Your task to perform on an android device: turn smart compose on in the gmail app Image 0: 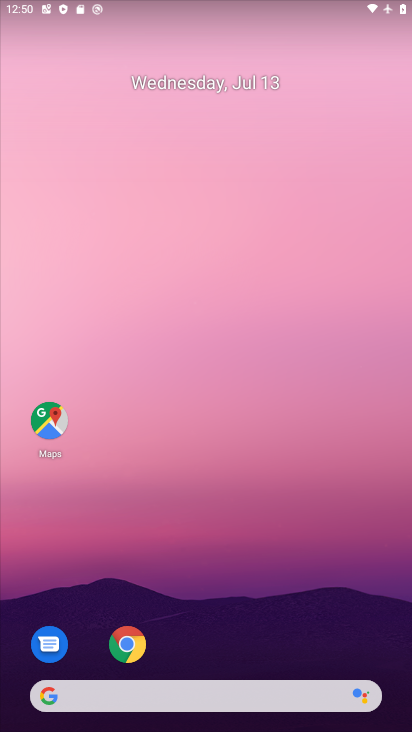
Step 0: drag from (319, 615) to (266, 105)
Your task to perform on an android device: turn smart compose on in the gmail app Image 1: 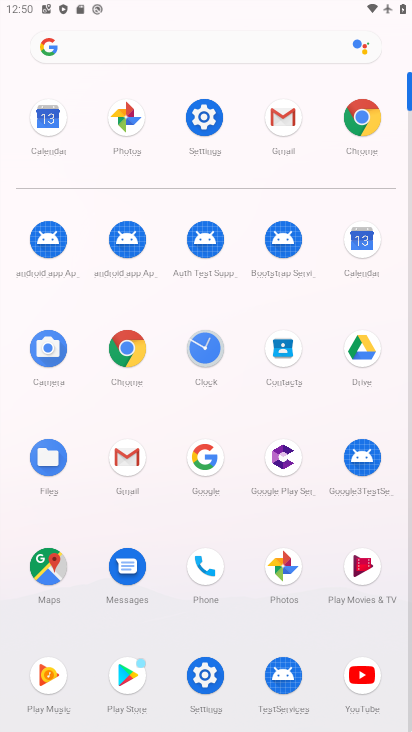
Step 1: click (208, 116)
Your task to perform on an android device: turn smart compose on in the gmail app Image 2: 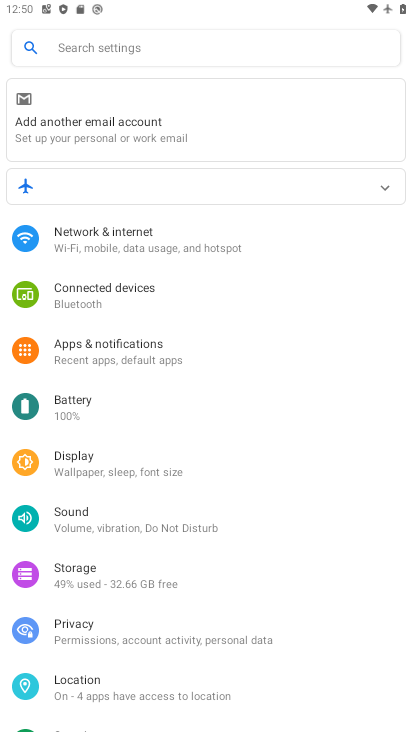
Step 2: press home button
Your task to perform on an android device: turn smart compose on in the gmail app Image 3: 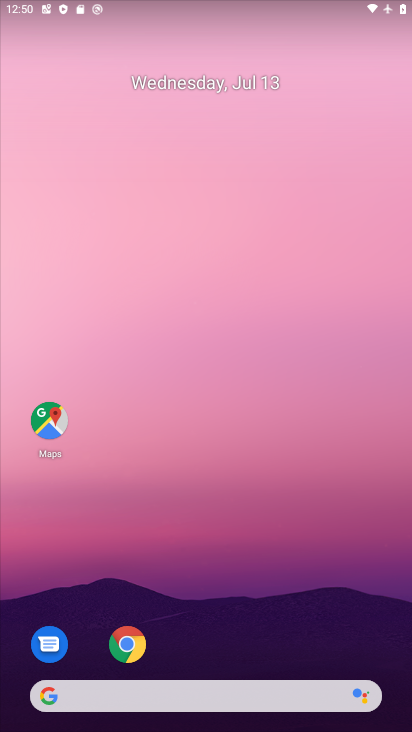
Step 3: drag from (248, 545) to (243, 75)
Your task to perform on an android device: turn smart compose on in the gmail app Image 4: 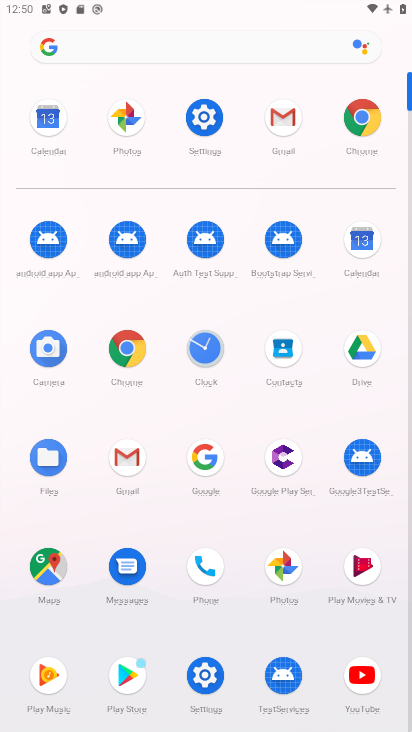
Step 4: click (285, 103)
Your task to perform on an android device: turn smart compose on in the gmail app Image 5: 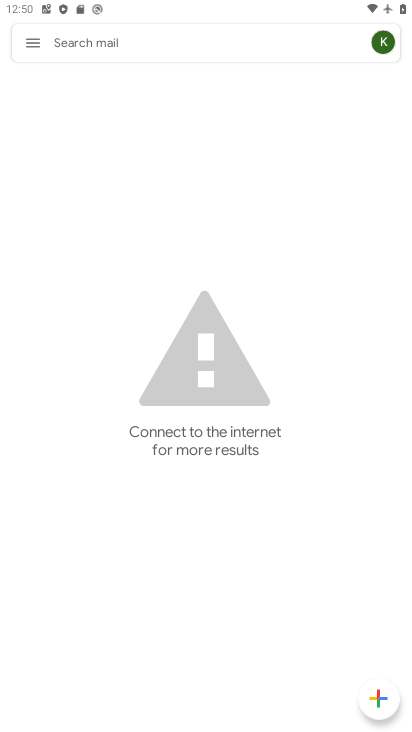
Step 5: click (36, 44)
Your task to perform on an android device: turn smart compose on in the gmail app Image 6: 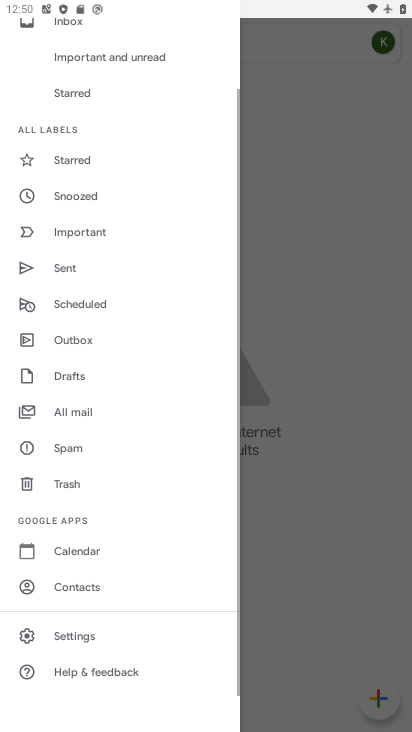
Step 6: click (89, 633)
Your task to perform on an android device: turn smart compose on in the gmail app Image 7: 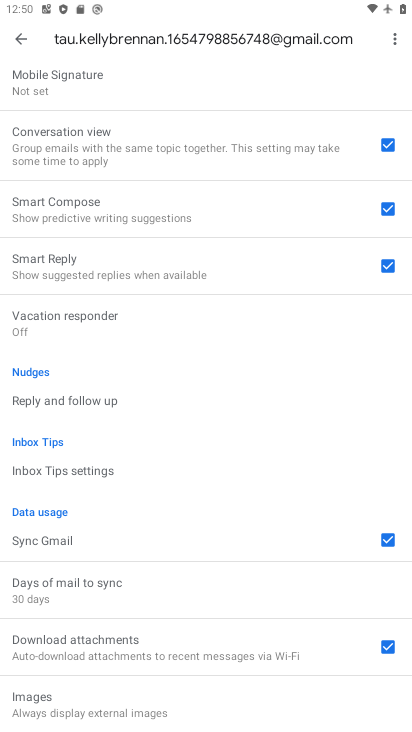
Step 7: task complete